Your task to perform on an android device: check out phone information Image 0: 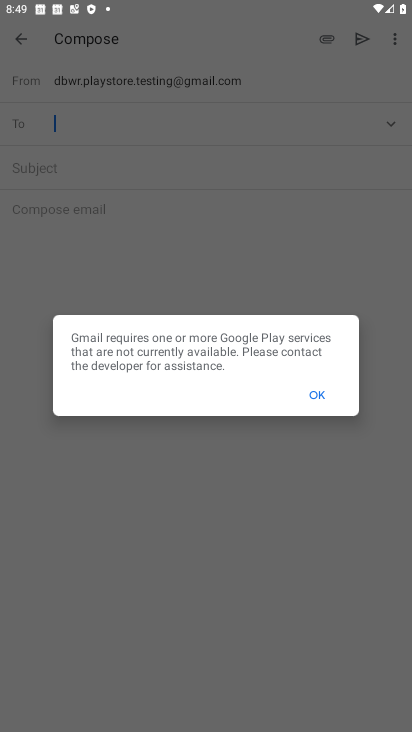
Step 0: drag from (187, 623) to (216, 145)
Your task to perform on an android device: check out phone information Image 1: 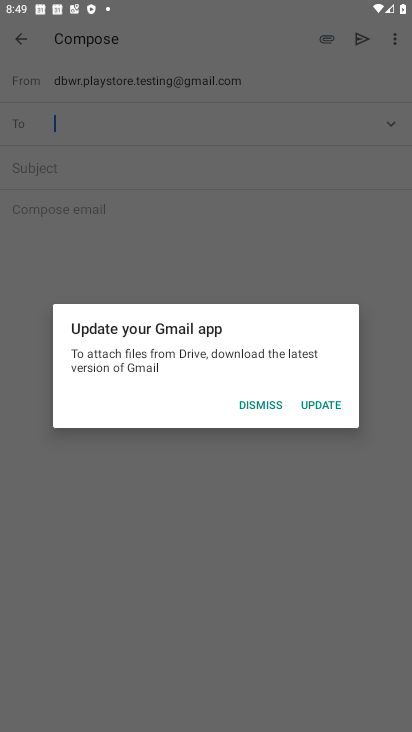
Step 1: press home button
Your task to perform on an android device: check out phone information Image 2: 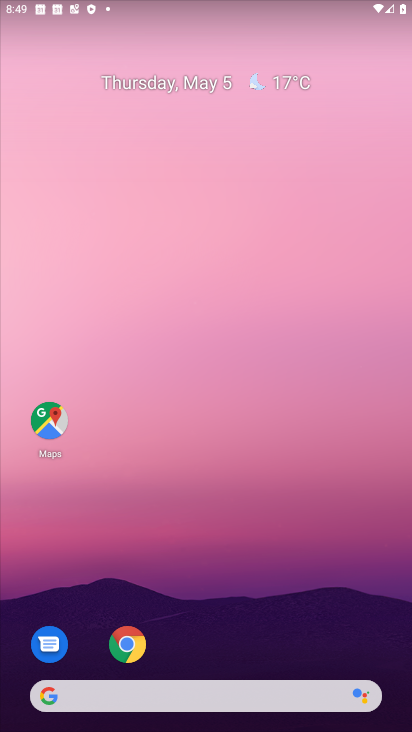
Step 2: drag from (212, 663) to (269, 234)
Your task to perform on an android device: check out phone information Image 3: 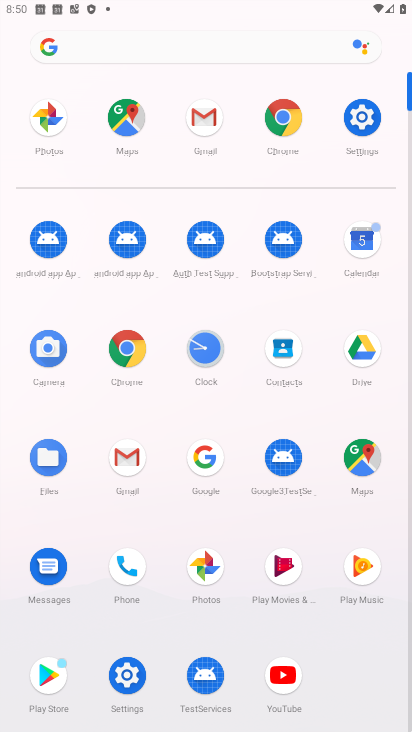
Step 3: click (128, 682)
Your task to perform on an android device: check out phone information Image 4: 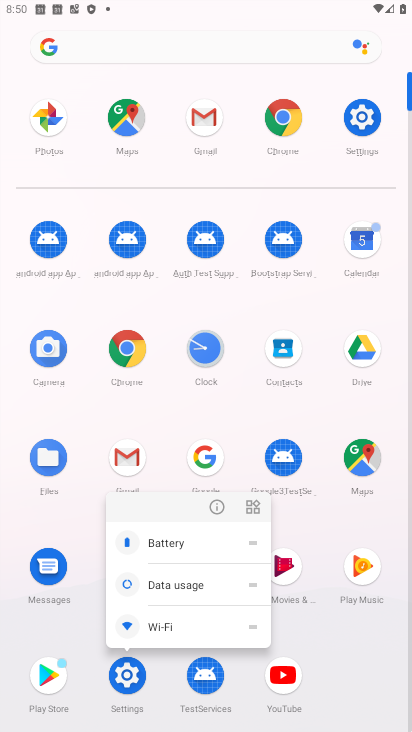
Step 4: click (212, 506)
Your task to perform on an android device: check out phone information Image 5: 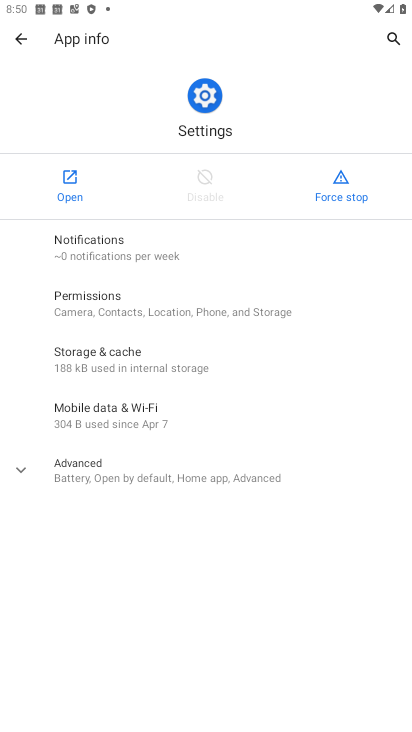
Step 5: click (63, 184)
Your task to perform on an android device: check out phone information Image 6: 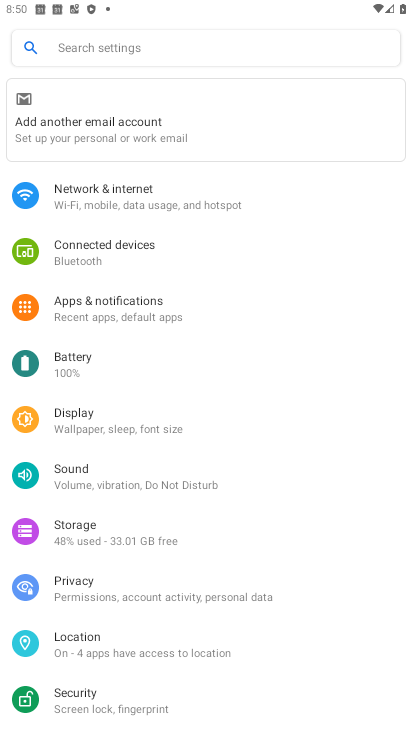
Step 6: drag from (167, 672) to (216, 343)
Your task to perform on an android device: check out phone information Image 7: 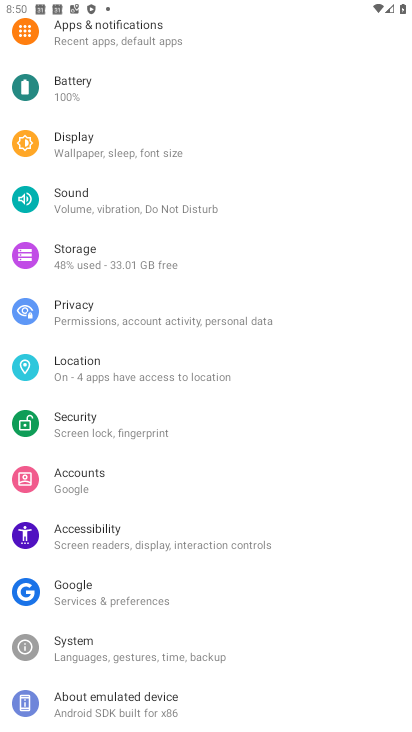
Step 7: click (122, 706)
Your task to perform on an android device: check out phone information Image 8: 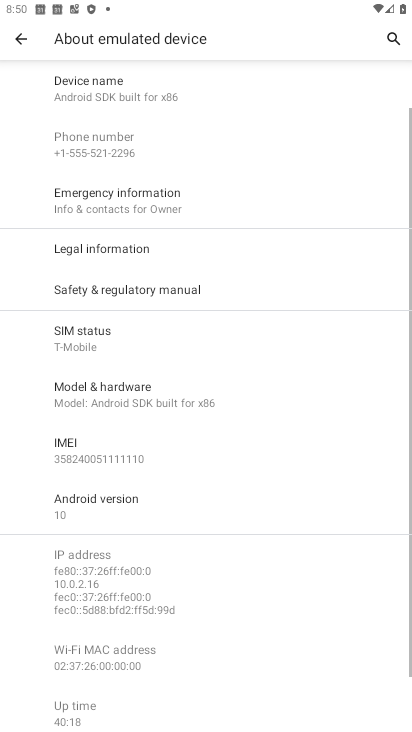
Step 8: drag from (176, 651) to (226, 263)
Your task to perform on an android device: check out phone information Image 9: 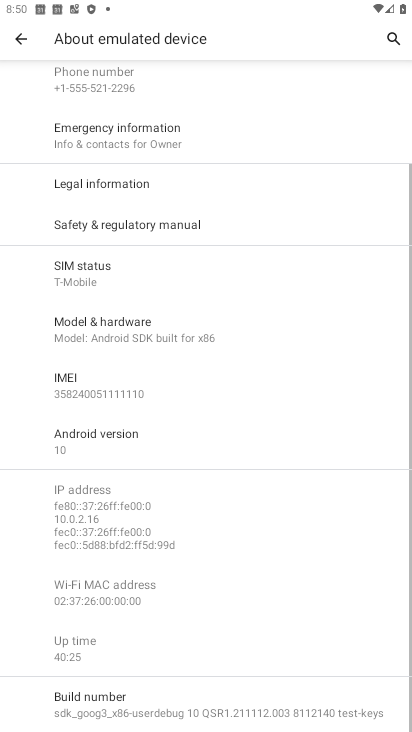
Step 9: drag from (210, 109) to (204, 516)
Your task to perform on an android device: check out phone information Image 10: 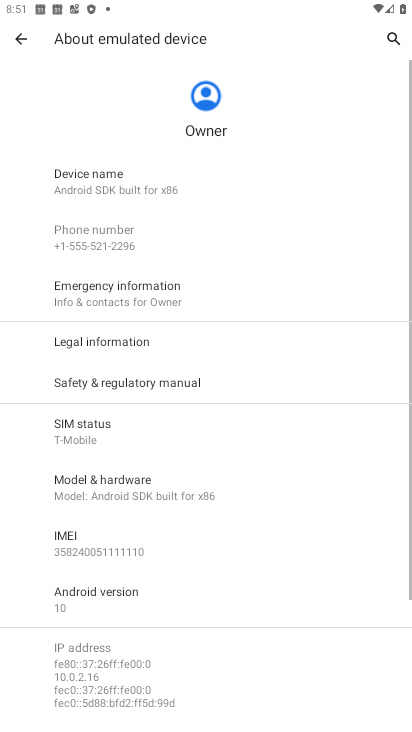
Step 10: drag from (265, 593) to (297, 339)
Your task to perform on an android device: check out phone information Image 11: 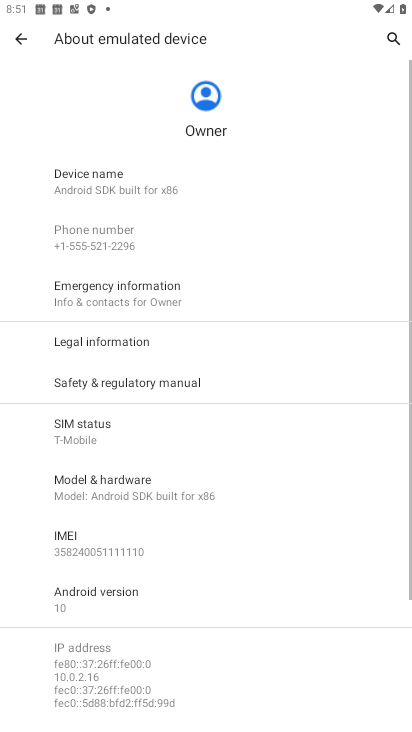
Step 11: click (197, 224)
Your task to perform on an android device: check out phone information Image 12: 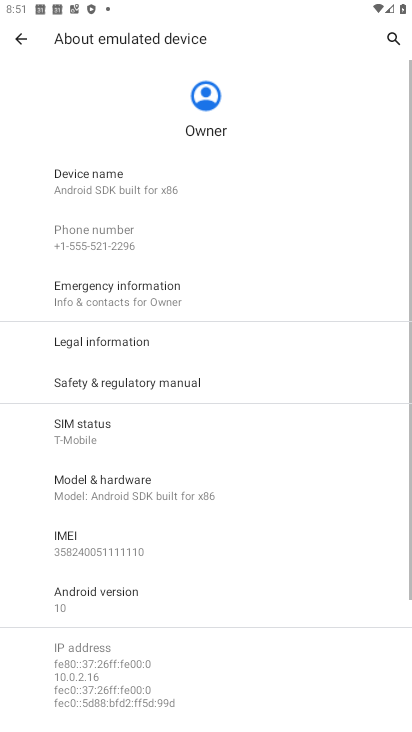
Step 12: task complete